Your task to perform on an android device: snooze an email in the gmail app Image 0: 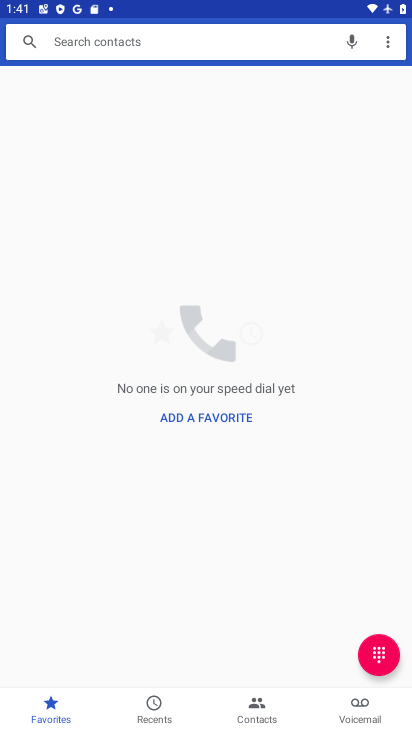
Step 0: press home button
Your task to perform on an android device: snooze an email in the gmail app Image 1: 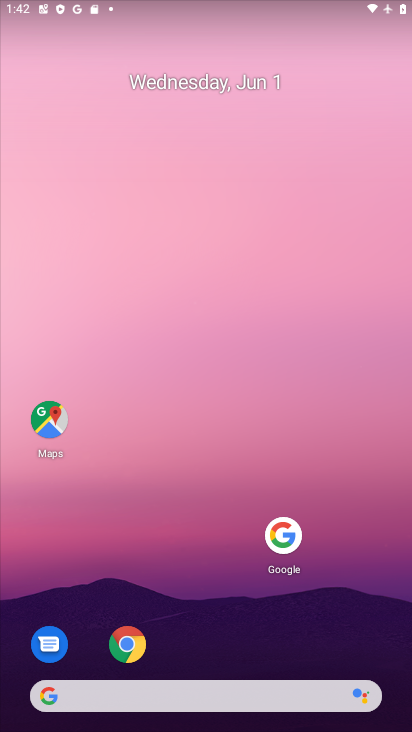
Step 1: drag from (137, 691) to (247, 136)
Your task to perform on an android device: snooze an email in the gmail app Image 2: 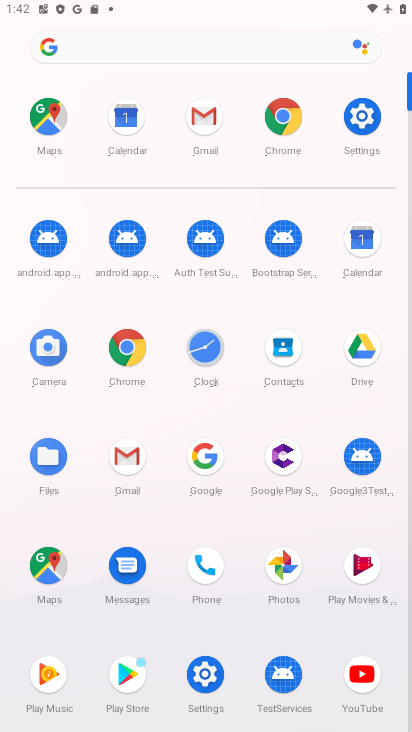
Step 2: click (203, 123)
Your task to perform on an android device: snooze an email in the gmail app Image 3: 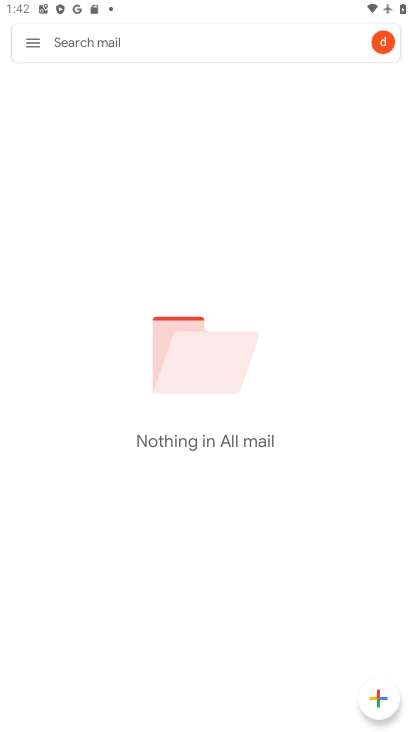
Step 3: task complete